Your task to perform on an android device: Open battery settings Image 0: 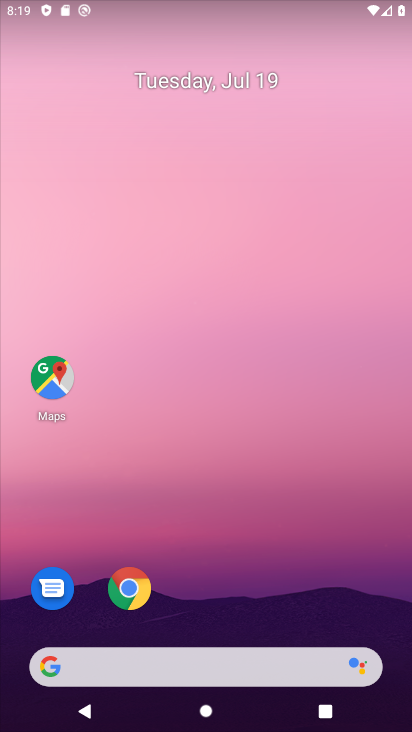
Step 0: drag from (287, 599) to (249, 202)
Your task to perform on an android device: Open battery settings Image 1: 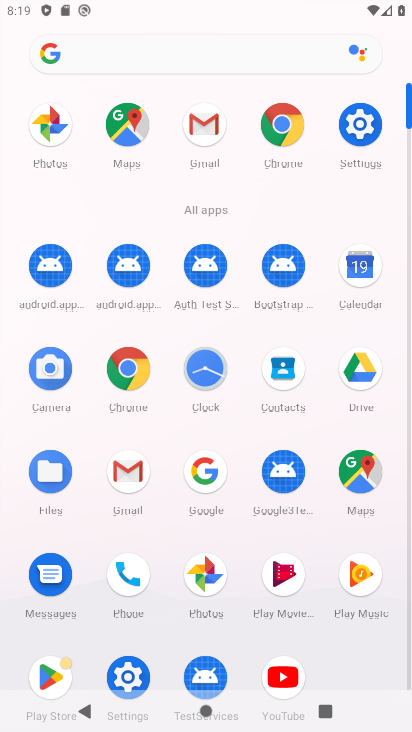
Step 1: click (350, 122)
Your task to perform on an android device: Open battery settings Image 2: 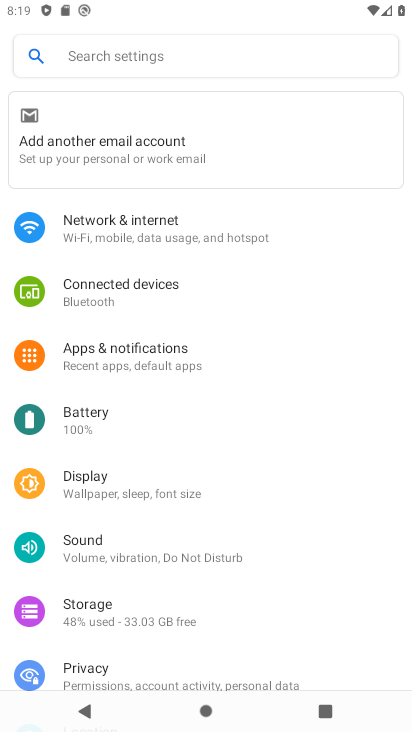
Step 2: click (94, 424)
Your task to perform on an android device: Open battery settings Image 3: 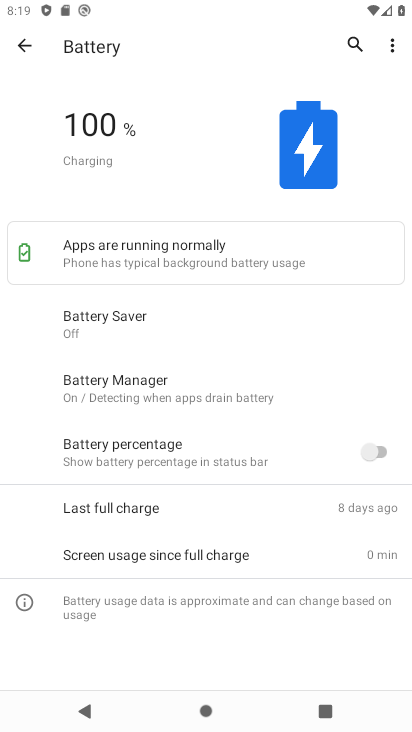
Step 3: task complete